Your task to perform on an android device: See recent photos Image 0: 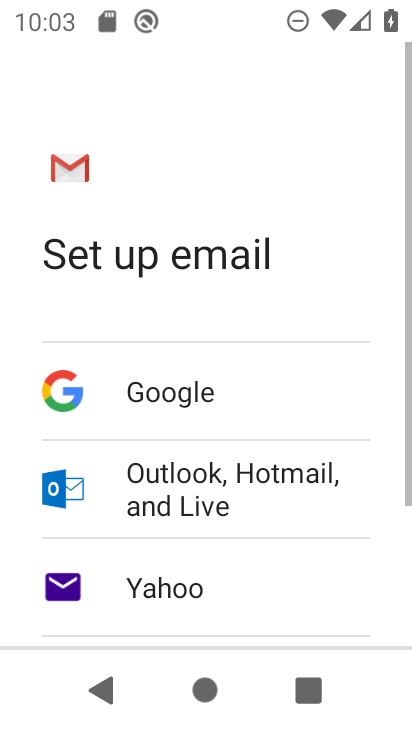
Step 0: press home button
Your task to perform on an android device: See recent photos Image 1: 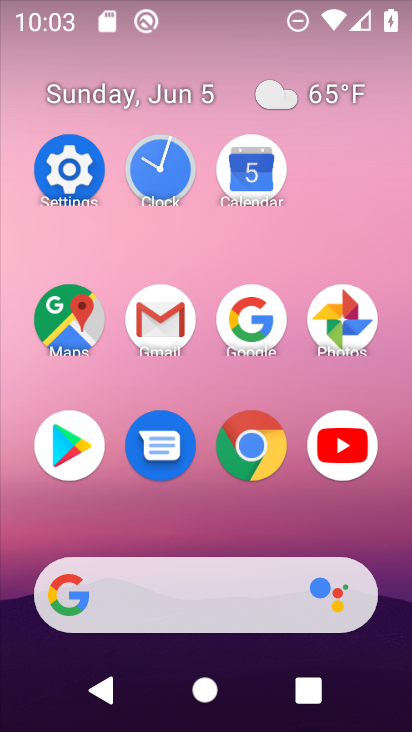
Step 1: click (350, 329)
Your task to perform on an android device: See recent photos Image 2: 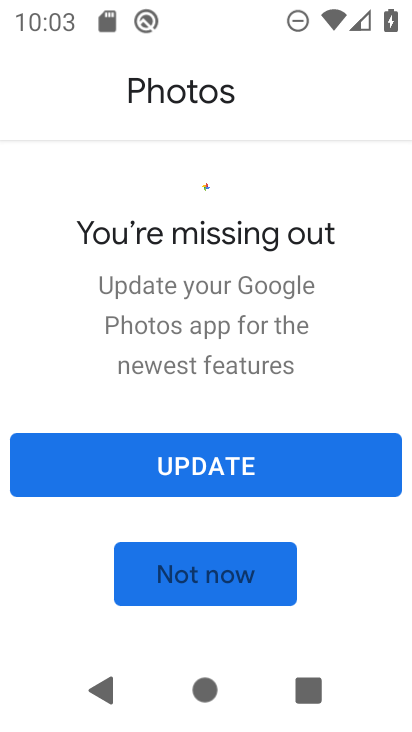
Step 2: task complete